Your task to perform on an android device: Open Maps and search for coffee Image 0: 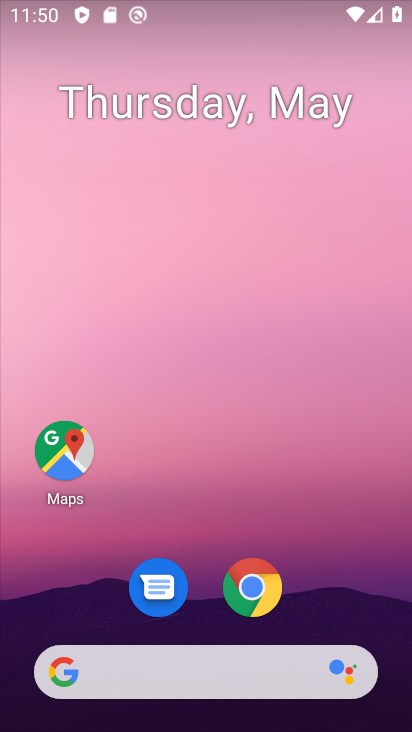
Step 0: click (60, 464)
Your task to perform on an android device: Open Maps and search for coffee Image 1: 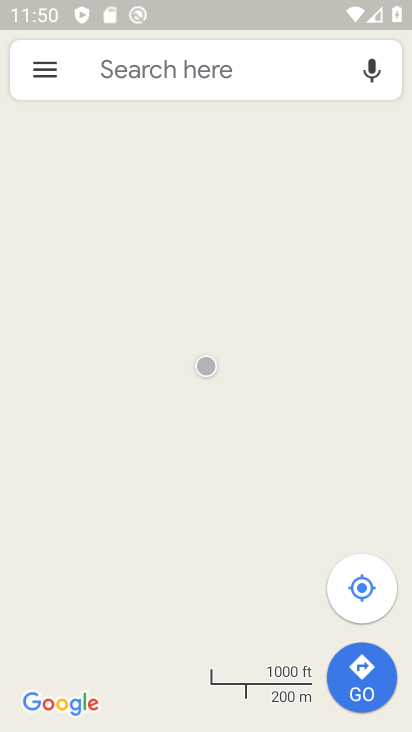
Step 1: click (222, 80)
Your task to perform on an android device: Open Maps and search for coffee Image 2: 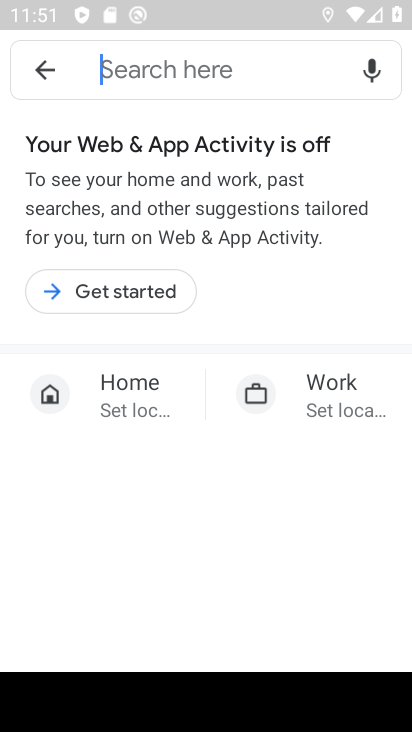
Step 2: type "coffee"
Your task to perform on an android device: Open Maps and search for coffee Image 3: 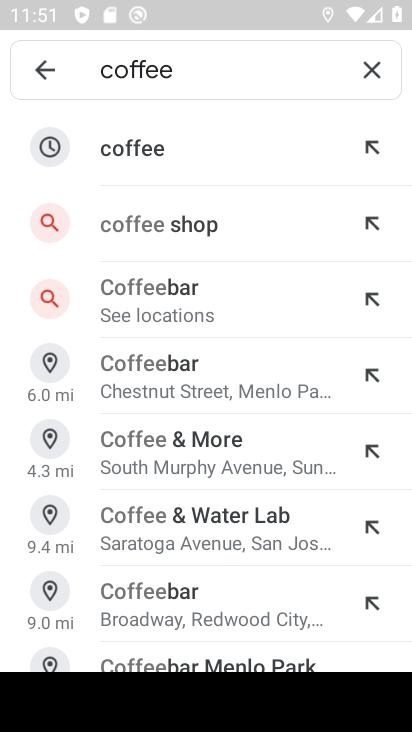
Step 3: click (145, 162)
Your task to perform on an android device: Open Maps and search for coffee Image 4: 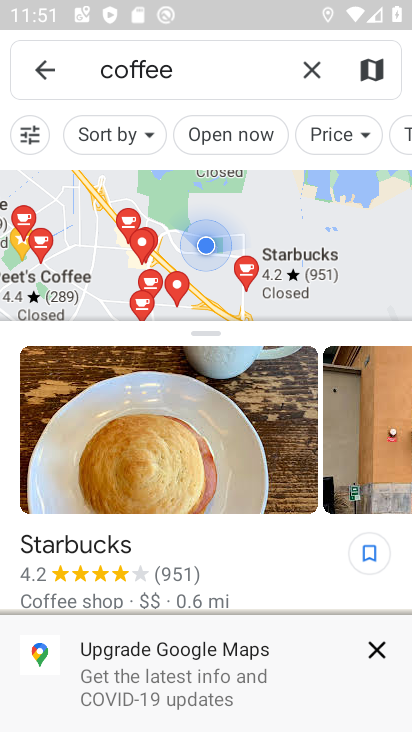
Step 4: task complete